Your task to perform on an android device: change your default location settings in chrome Image 0: 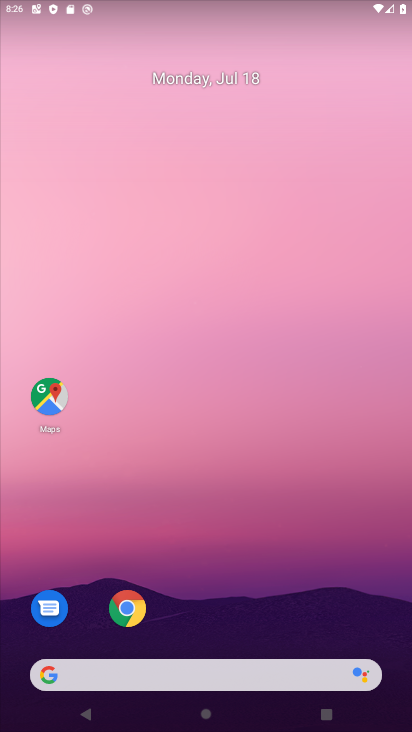
Step 0: drag from (247, 725) to (249, 140)
Your task to perform on an android device: change your default location settings in chrome Image 1: 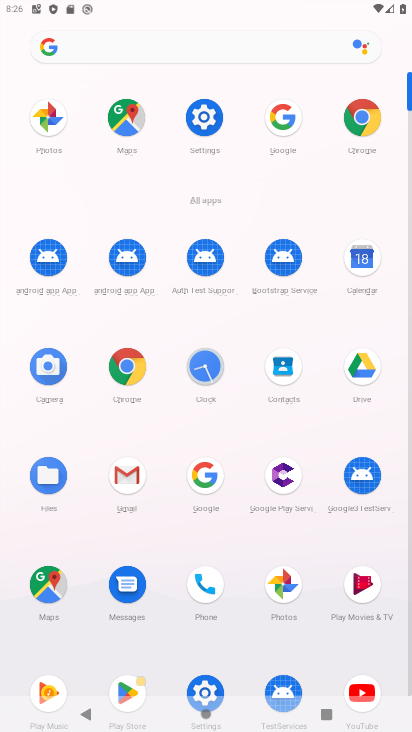
Step 1: click (125, 353)
Your task to perform on an android device: change your default location settings in chrome Image 2: 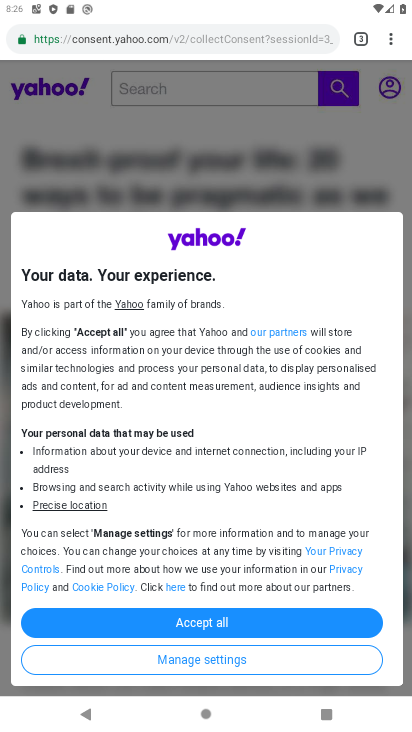
Step 2: click (391, 41)
Your task to perform on an android device: change your default location settings in chrome Image 3: 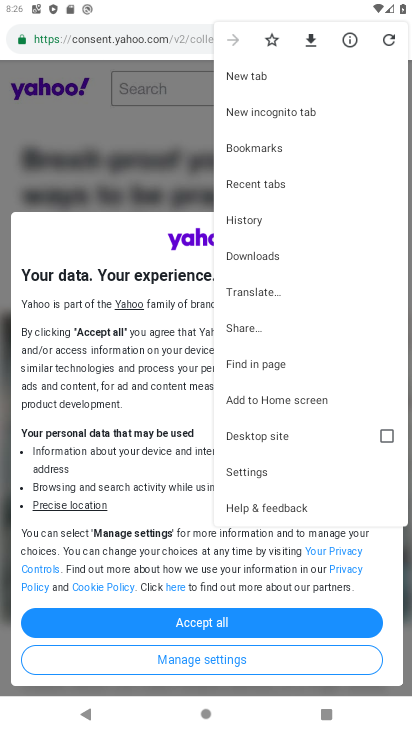
Step 3: click (244, 468)
Your task to perform on an android device: change your default location settings in chrome Image 4: 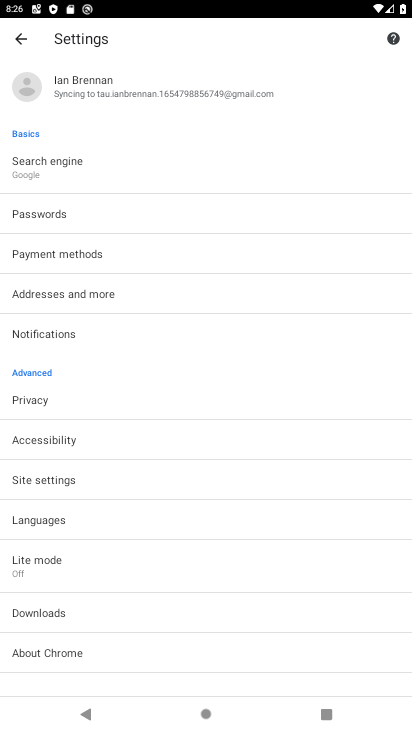
Step 4: click (52, 480)
Your task to perform on an android device: change your default location settings in chrome Image 5: 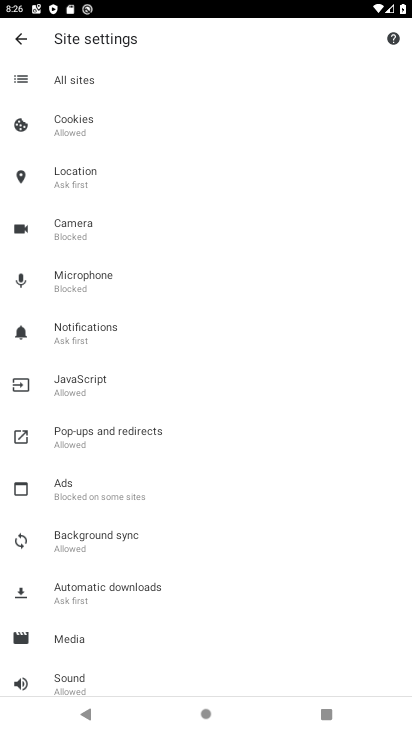
Step 5: click (69, 179)
Your task to perform on an android device: change your default location settings in chrome Image 6: 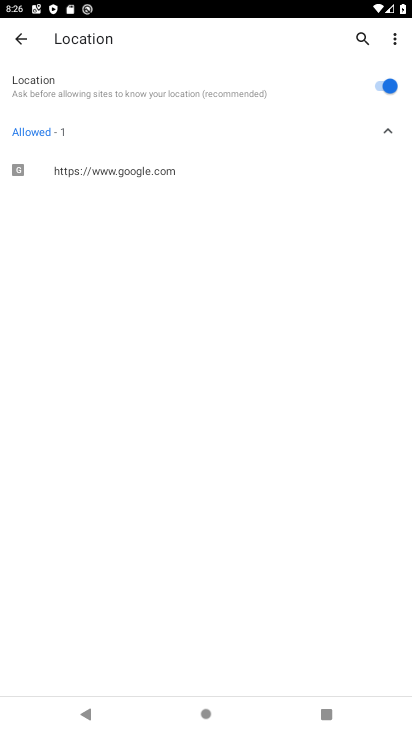
Step 6: click (382, 84)
Your task to perform on an android device: change your default location settings in chrome Image 7: 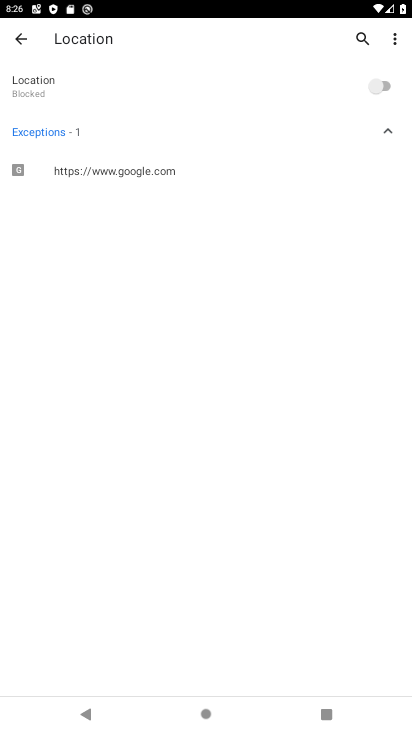
Step 7: task complete